Your task to perform on an android device: toggle wifi Image 0: 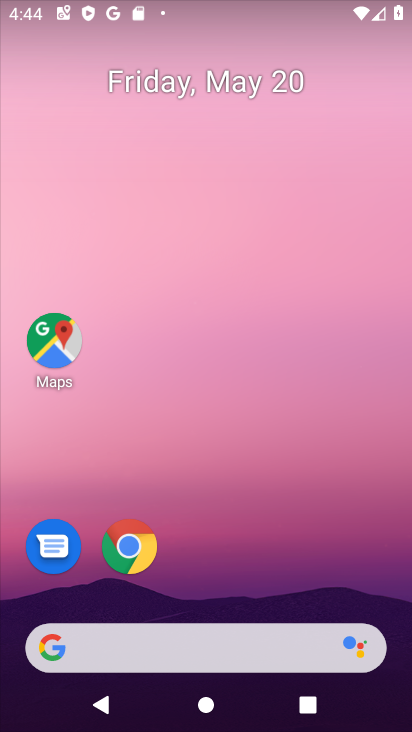
Step 0: drag from (226, 593) to (248, 62)
Your task to perform on an android device: toggle wifi Image 1: 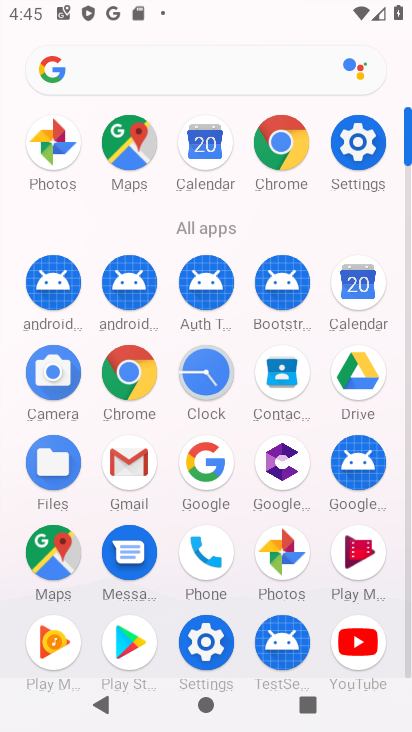
Step 1: click (356, 144)
Your task to perform on an android device: toggle wifi Image 2: 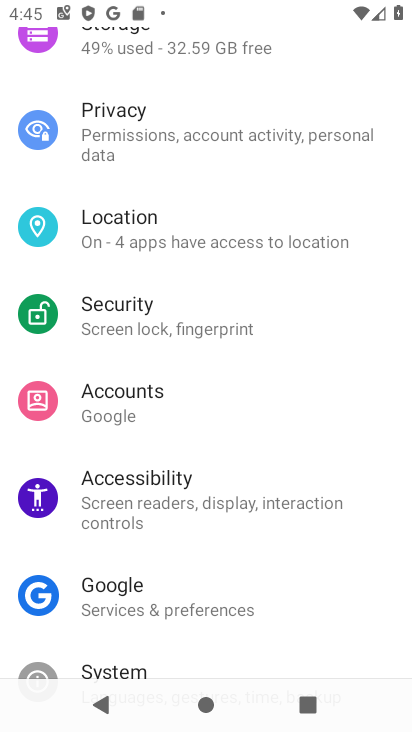
Step 2: drag from (150, 546) to (204, 458)
Your task to perform on an android device: toggle wifi Image 3: 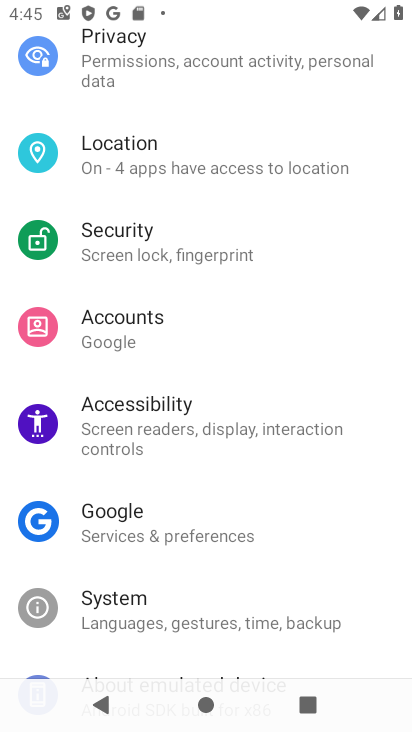
Step 3: drag from (195, 180) to (235, 346)
Your task to perform on an android device: toggle wifi Image 4: 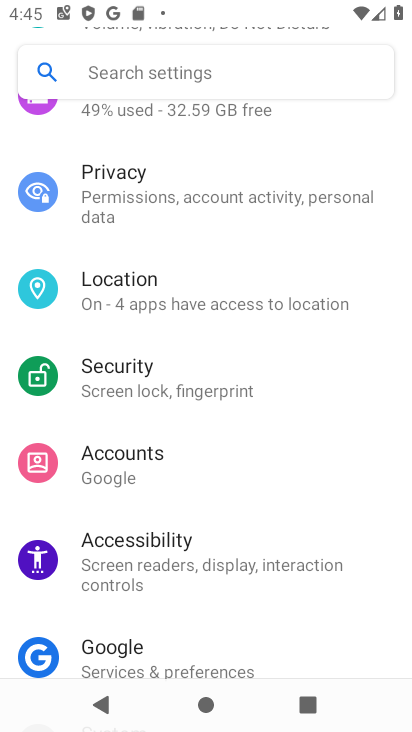
Step 4: drag from (222, 206) to (227, 456)
Your task to perform on an android device: toggle wifi Image 5: 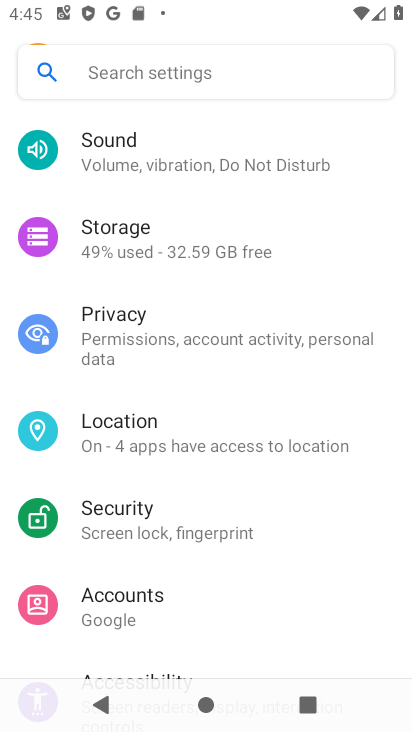
Step 5: drag from (166, 188) to (147, 320)
Your task to perform on an android device: toggle wifi Image 6: 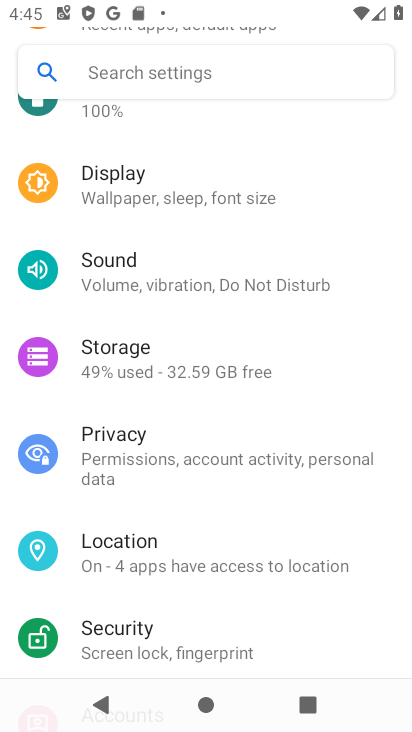
Step 6: drag from (209, 183) to (172, 317)
Your task to perform on an android device: toggle wifi Image 7: 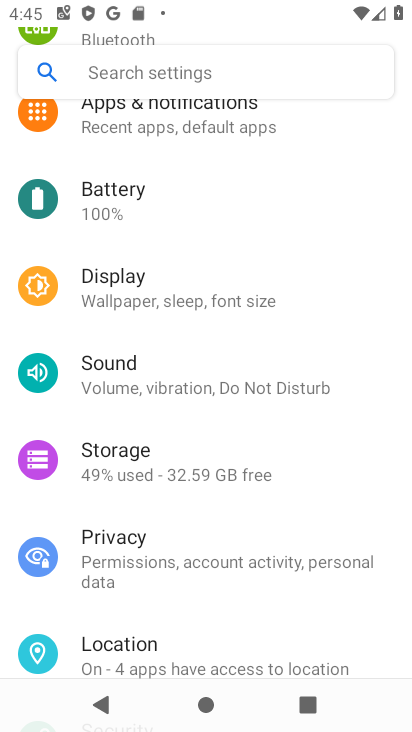
Step 7: drag from (188, 187) to (167, 329)
Your task to perform on an android device: toggle wifi Image 8: 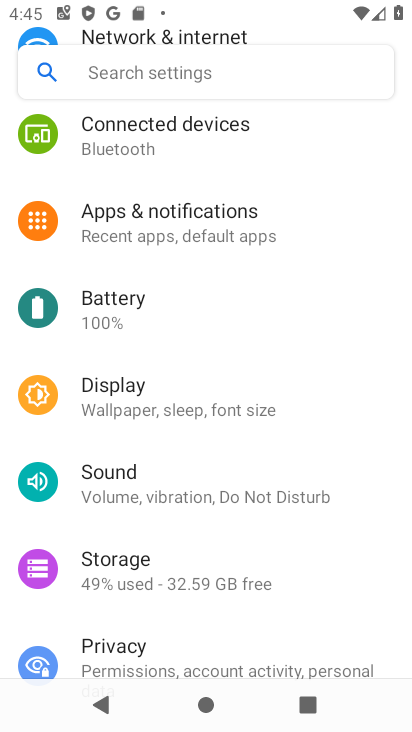
Step 8: drag from (163, 169) to (180, 306)
Your task to perform on an android device: toggle wifi Image 9: 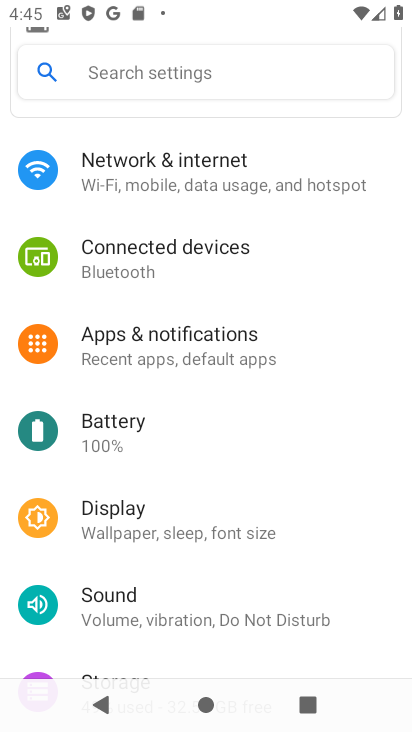
Step 9: click (169, 173)
Your task to perform on an android device: toggle wifi Image 10: 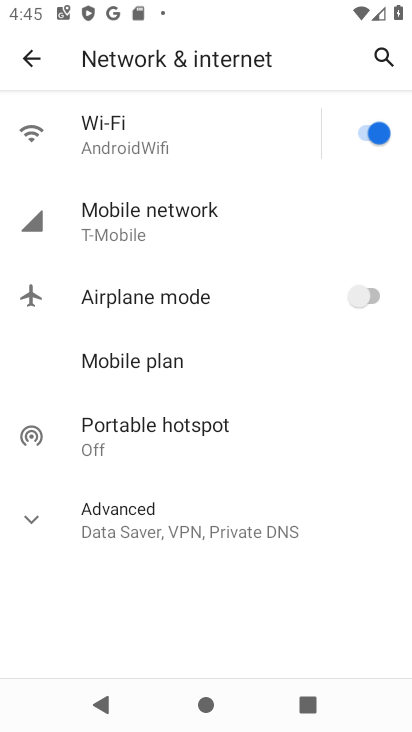
Step 10: click (378, 130)
Your task to perform on an android device: toggle wifi Image 11: 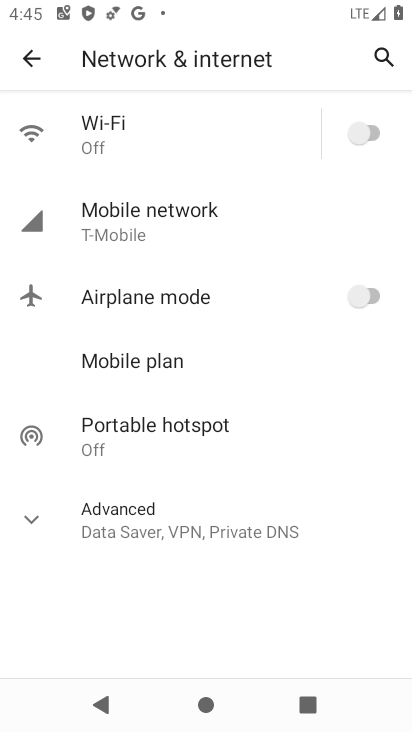
Step 11: task complete